Your task to perform on an android device: View the shopping cart on walmart.com. Search for "bose quietcomfort 35" on walmart.com, select the first entry, add it to the cart, then select checkout. Image 0: 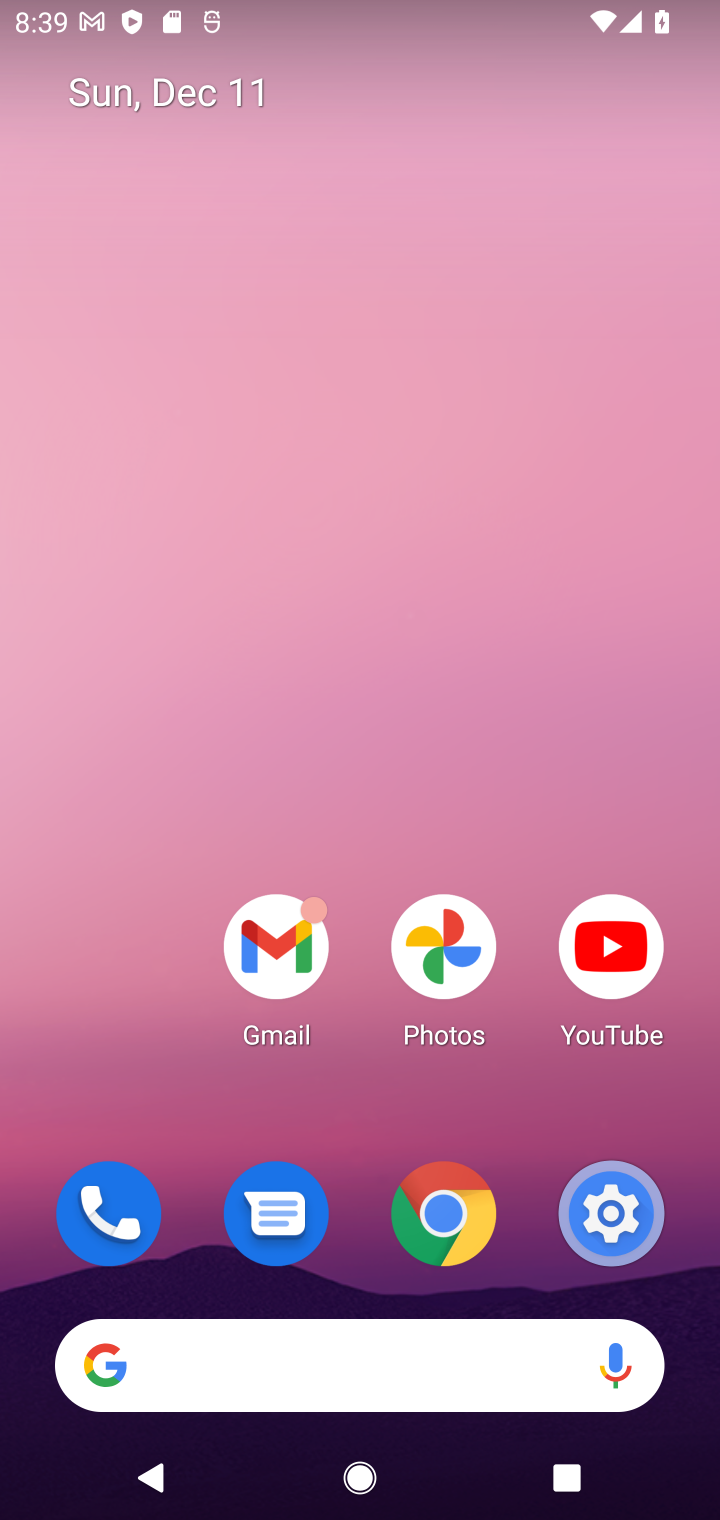
Step 0: click (425, 1339)
Your task to perform on an android device: View the shopping cart on walmart.com. Search for "bose quietcomfort 35" on walmart.com, select the first entry, add it to the cart, then select checkout. Image 1: 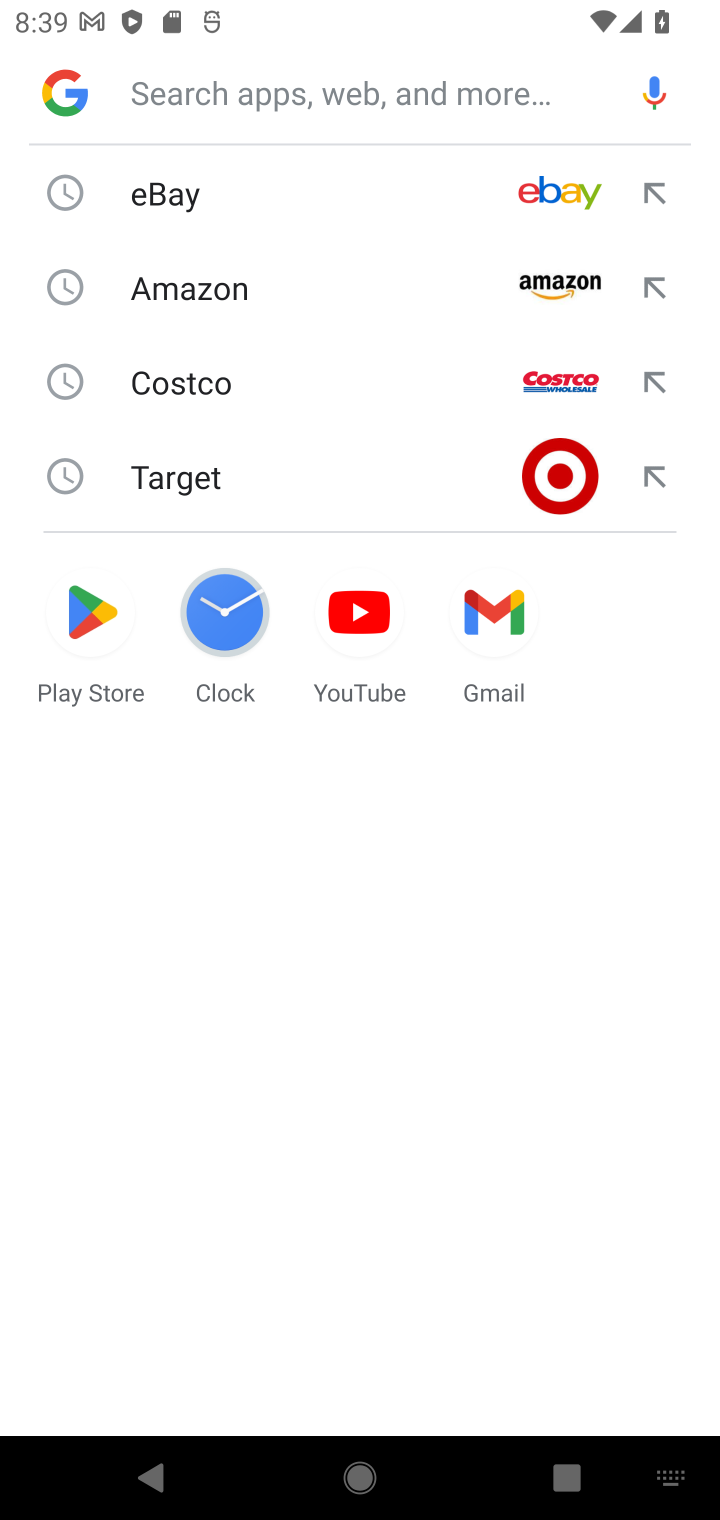
Step 1: type "walmart"
Your task to perform on an android device: View the shopping cart on walmart.com. Search for "bose quietcomfort 35" on walmart.com, select the first entry, add it to the cart, then select checkout. Image 2: 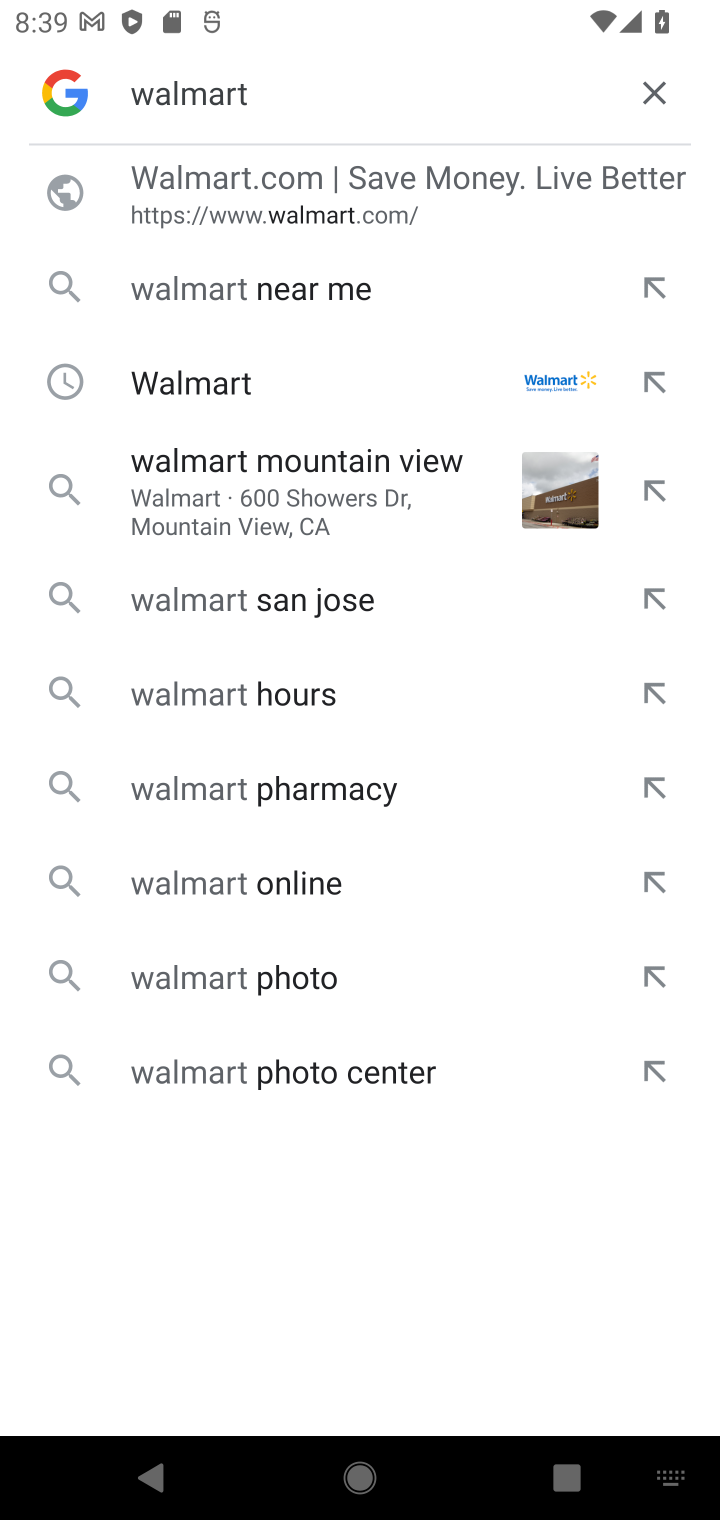
Step 2: click (250, 236)
Your task to perform on an android device: View the shopping cart on walmart.com. Search for "bose quietcomfort 35" on walmart.com, select the first entry, add it to the cart, then select checkout. Image 3: 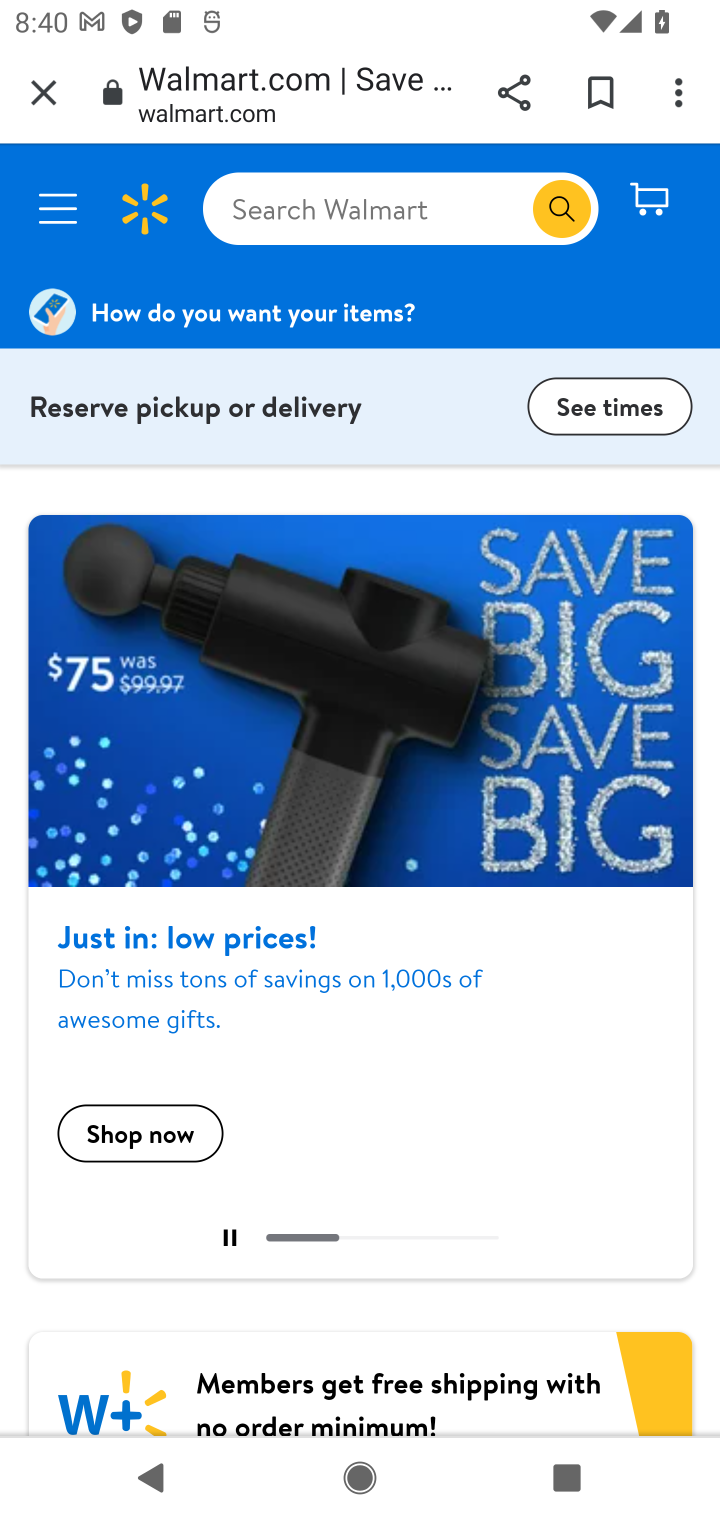
Step 3: click (250, 236)
Your task to perform on an android device: View the shopping cart on walmart.com. Search for "bose quietcomfort 35" on walmart.com, select the first entry, add it to the cart, then select checkout. Image 4: 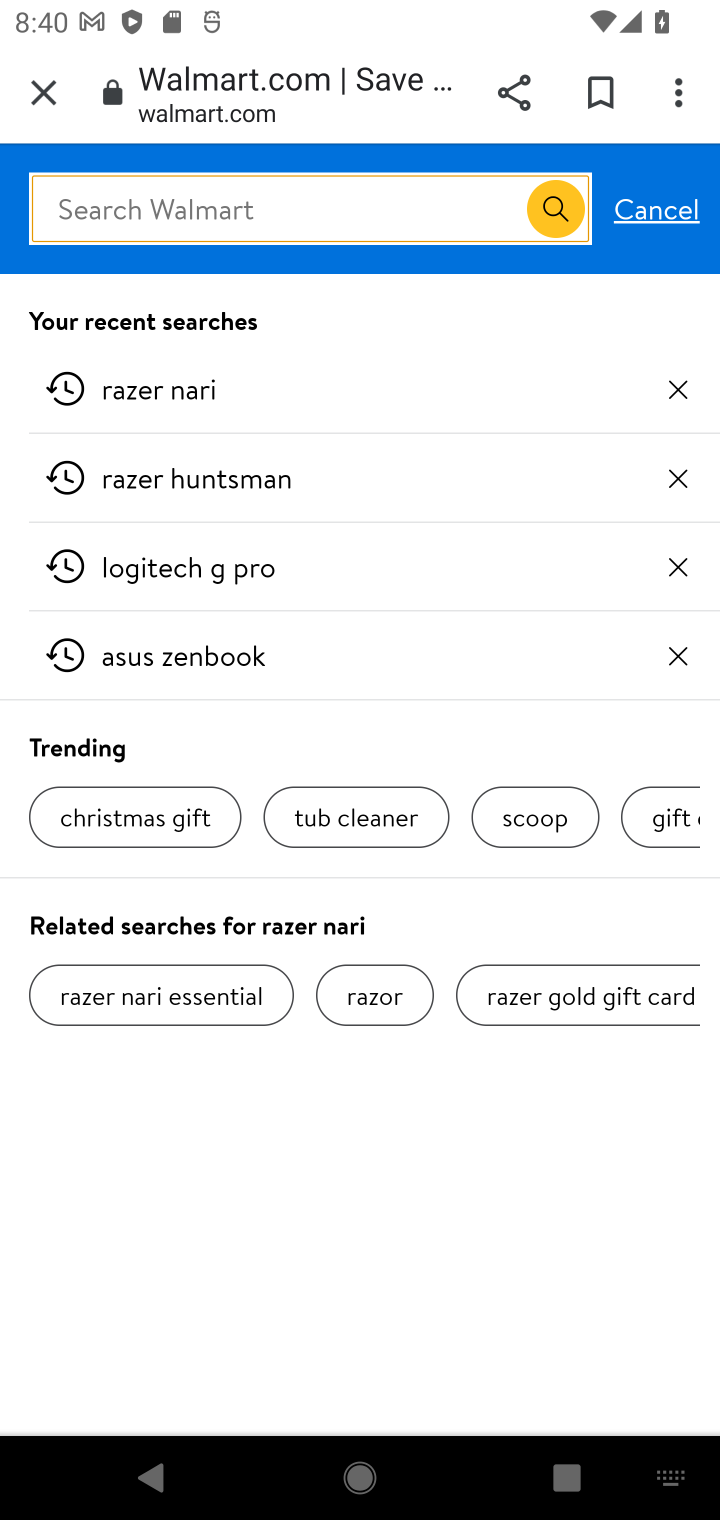
Step 4: type "bose quitcomfrot"
Your task to perform on an android device: View the shopping cart on walmart.com. Search for "bose quietcomfort 35" on walmart.com, select the first entry, add it to the cart, then select checkout. Image 5: 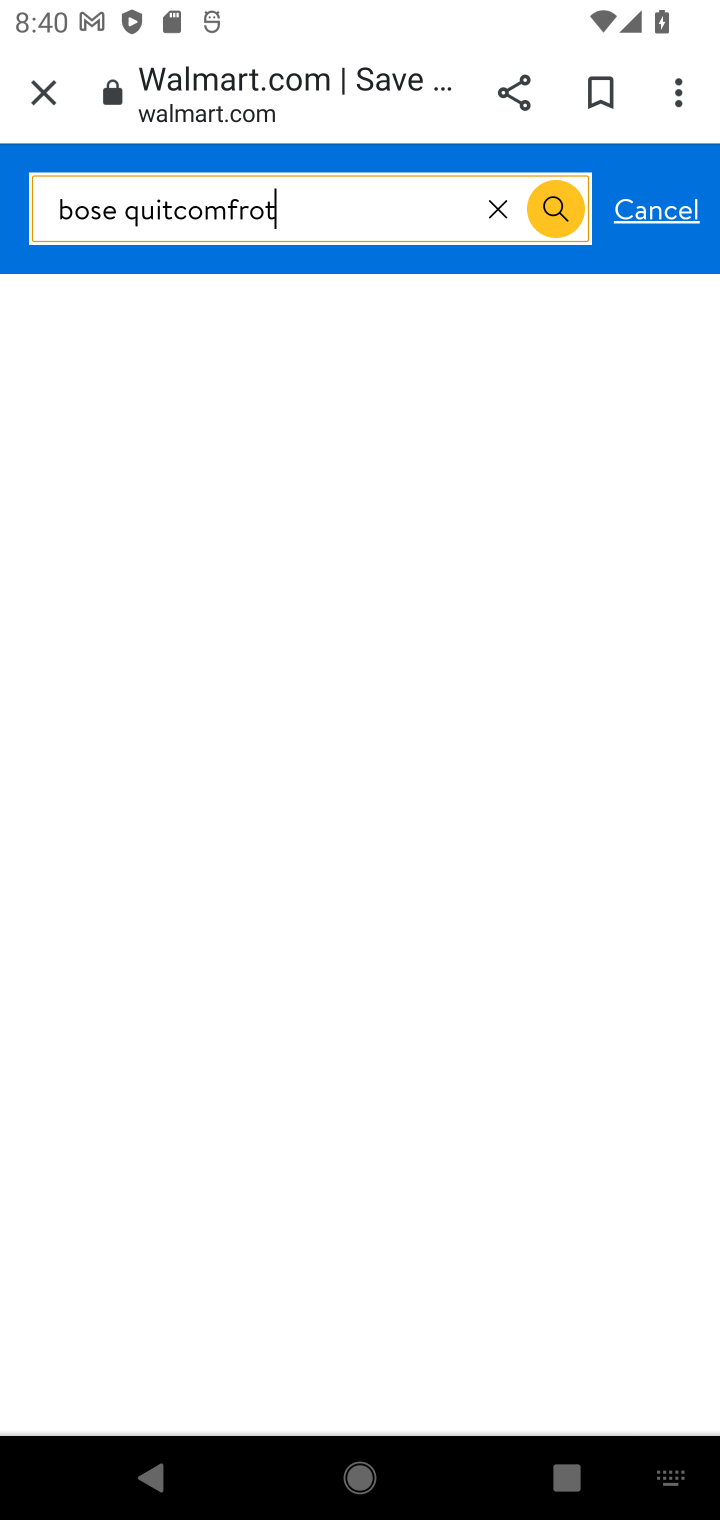
Step 5: click (414, 211)
Your task to perform on an android device: View the shopping cart on walmart.com. Search for "bose quietcomfort 35" on walmart.com, select the first entry, add it to the cart, then select checkout. Image 6: 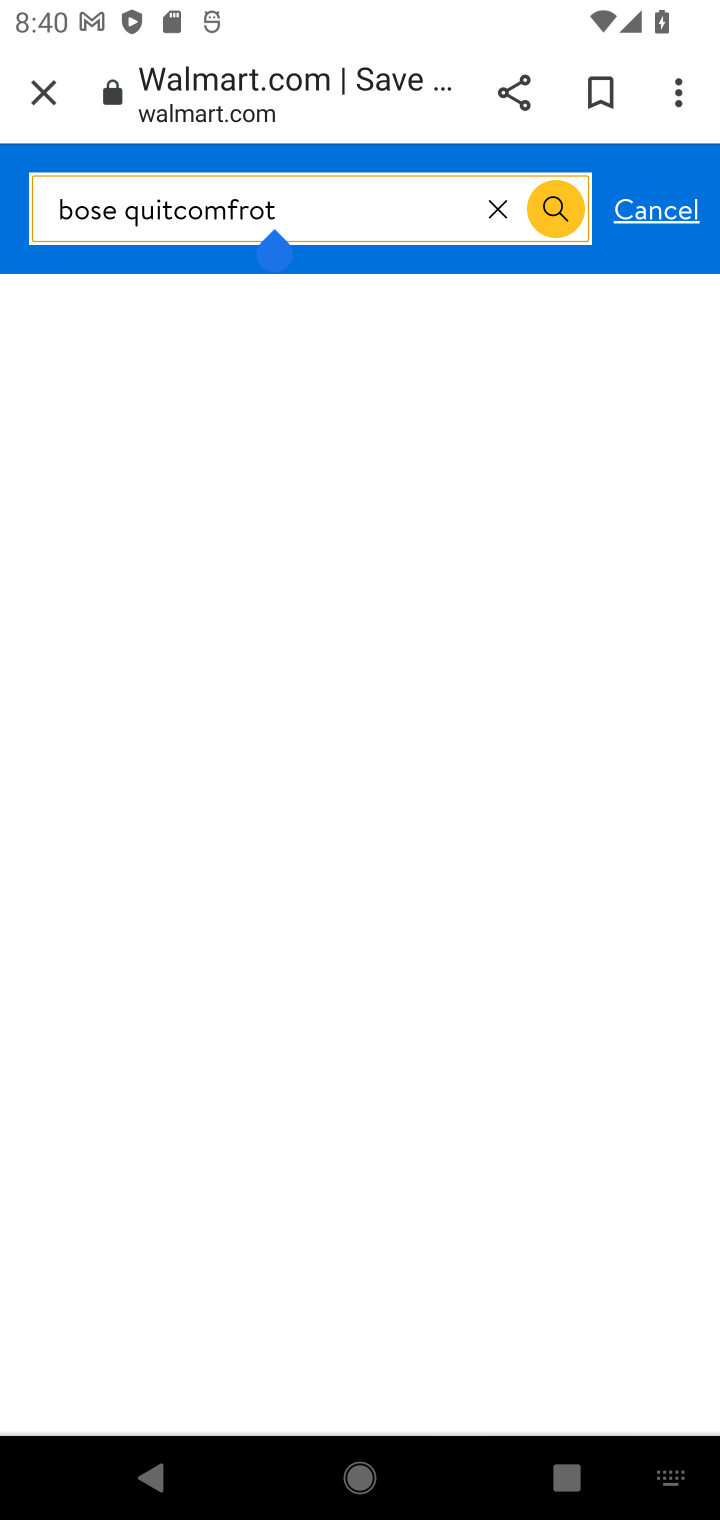
Step 6: click (542, 211)
Your task to perform on an android device: View the shopping cart on walmart.com. Search for "bose quietcomfort 35" on walmart.com, select the first entry, add it to the cart, then select checkout. Image 7: 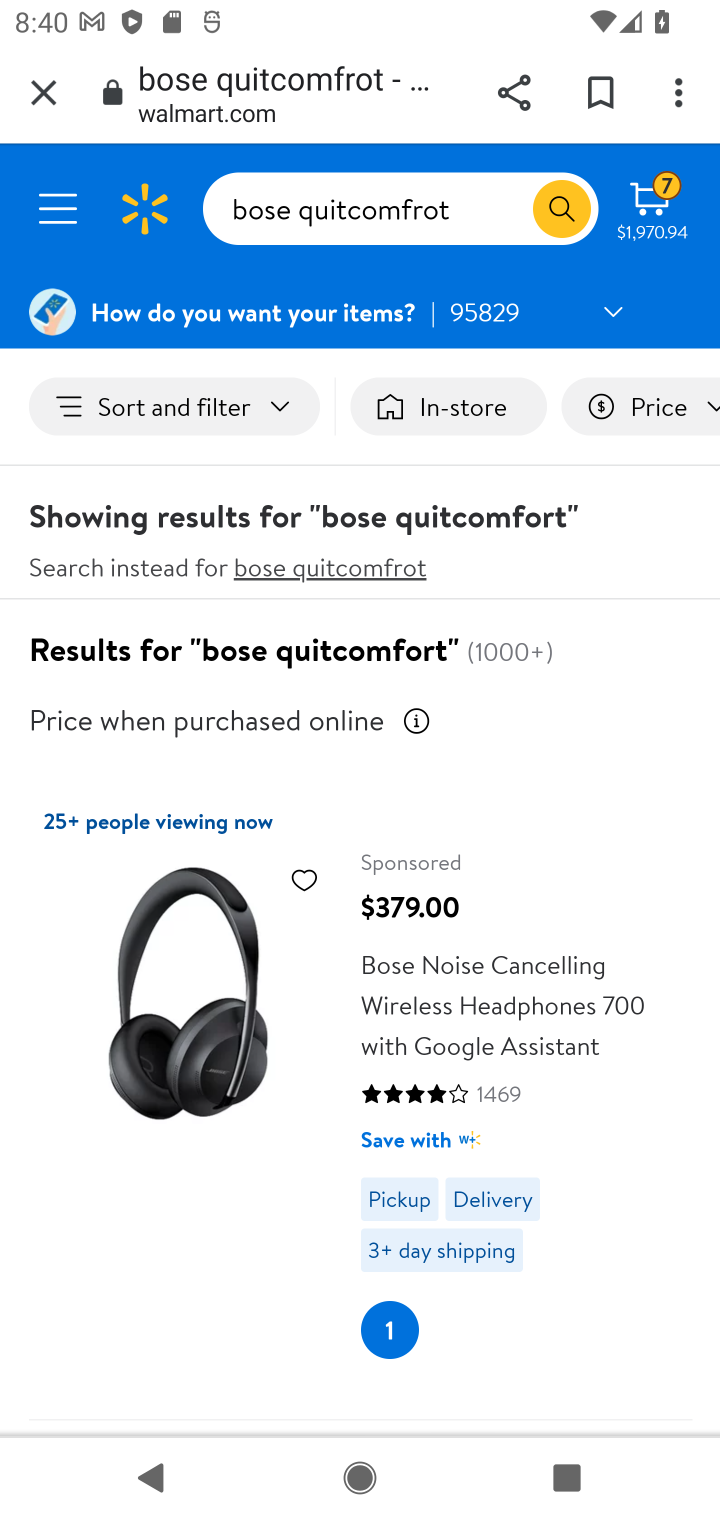
Step 7: drag from (511, 1300) to (421, 562)
Your task to perform on an android device: View the shopping cart on walmart.com. Search for "bose quietcomfort 35" on walmart.com, select the first entry, add it to the cart, then select checkout. Image 8: 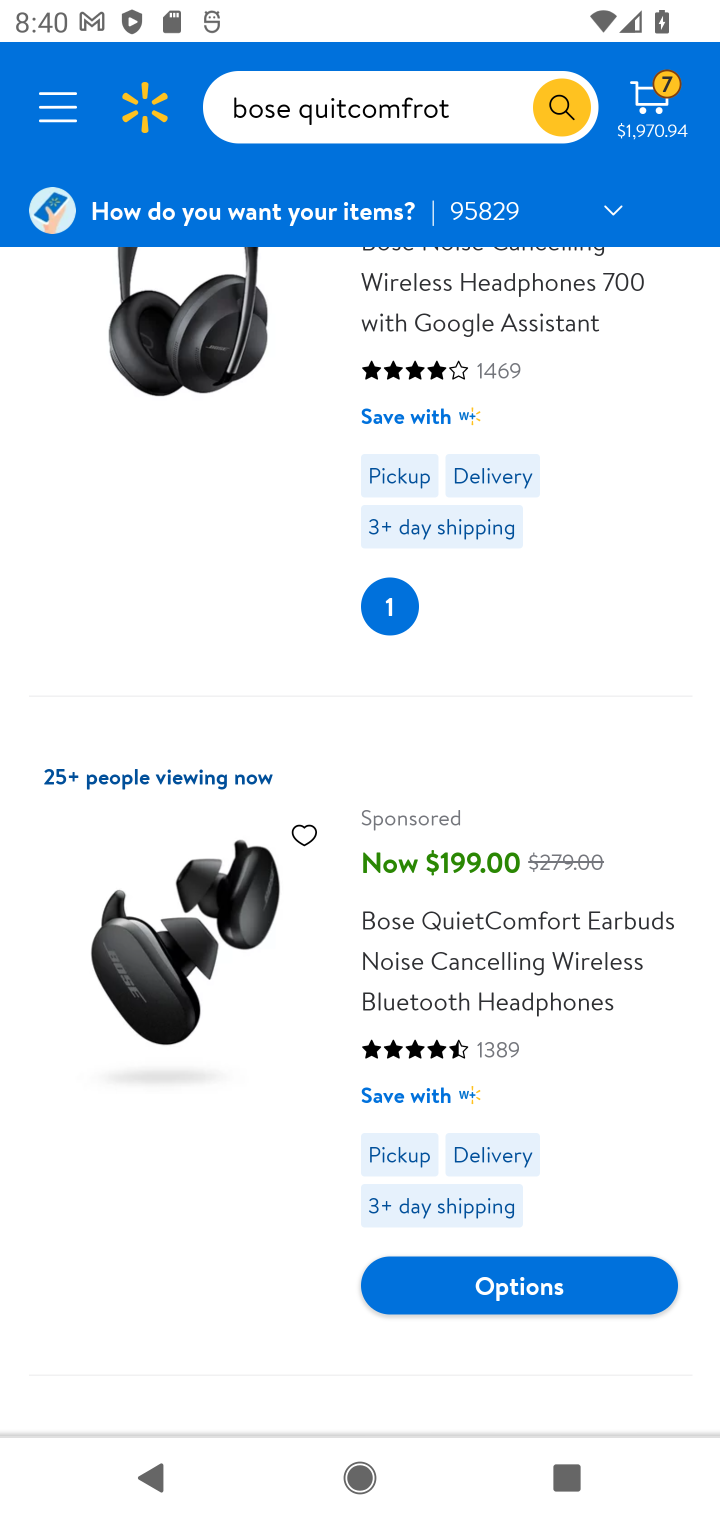
Step 8: click (573, 1308)
Your task to perform on an android device: View the shopping cart on walmart.com. Search for "bose quietcomfort 35" on walmart.com, select the first entry, add it to the cart, then select checkout. Image 9: 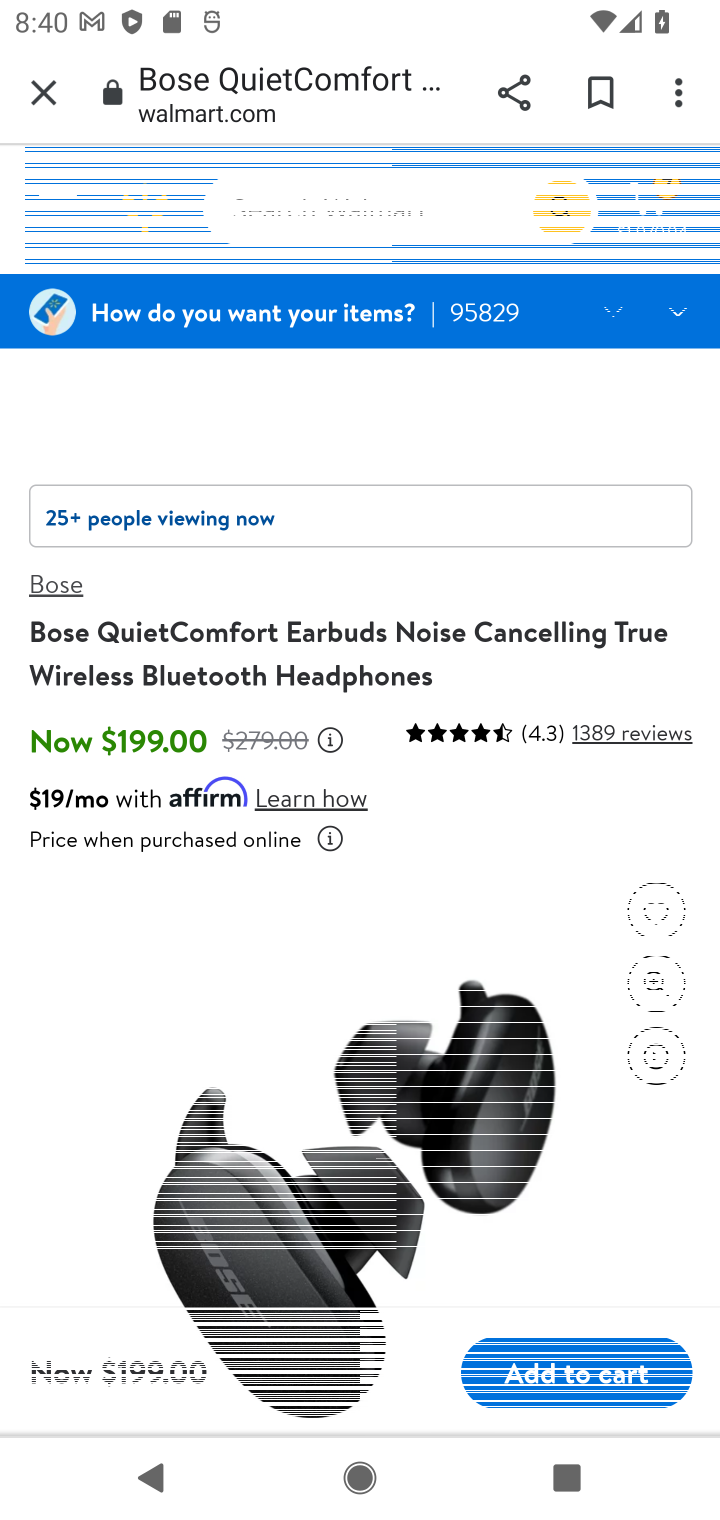
Step 9: task complete